Your task to perform on an android device: turn off airplane mode Image 0: 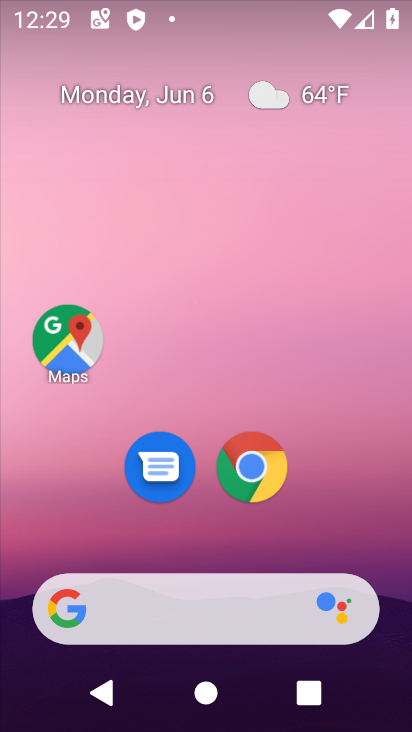
Step 0: drag from (350, 519) to (277, 161)
Your task to perform on an android device: turn off airplane mode Image 1: 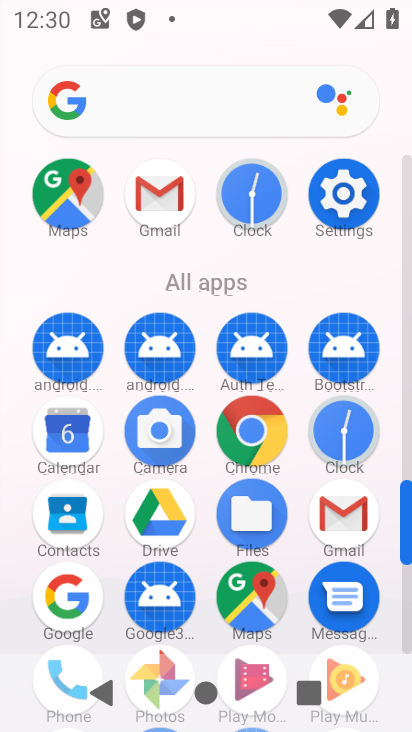
Step 1: click (342, 195)
Your task to perform on an android device: turn off airplane mode Image 2: 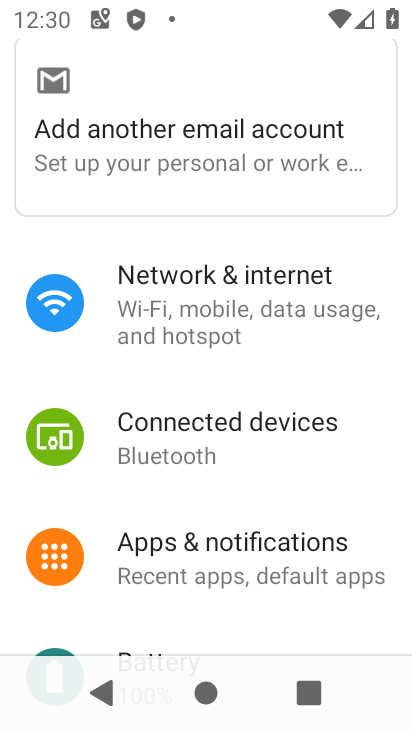
Step 2: click (177, 288)
Your task to perform on an android device: turn off airplane mode Image 3: 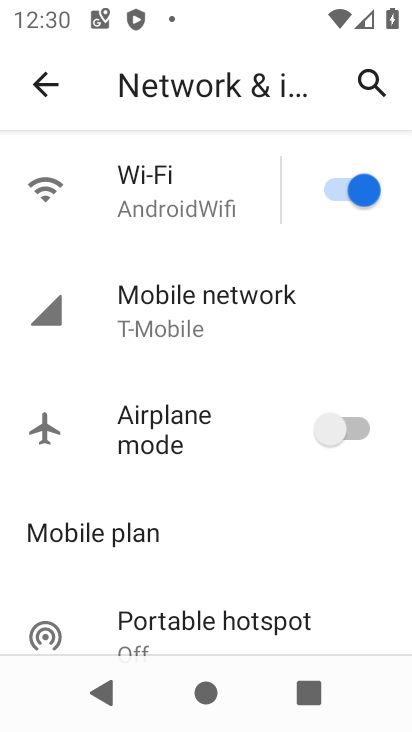
Step 3: click (329, 189)
Your task to perform on an android device: turn off airplane mode Image 4: 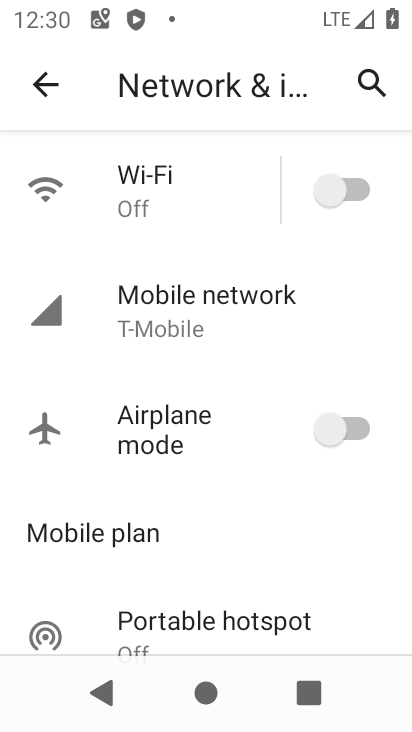
Step 4: task complete